Your task to perform on an android device: Search for a new eyeshadow Image 0: 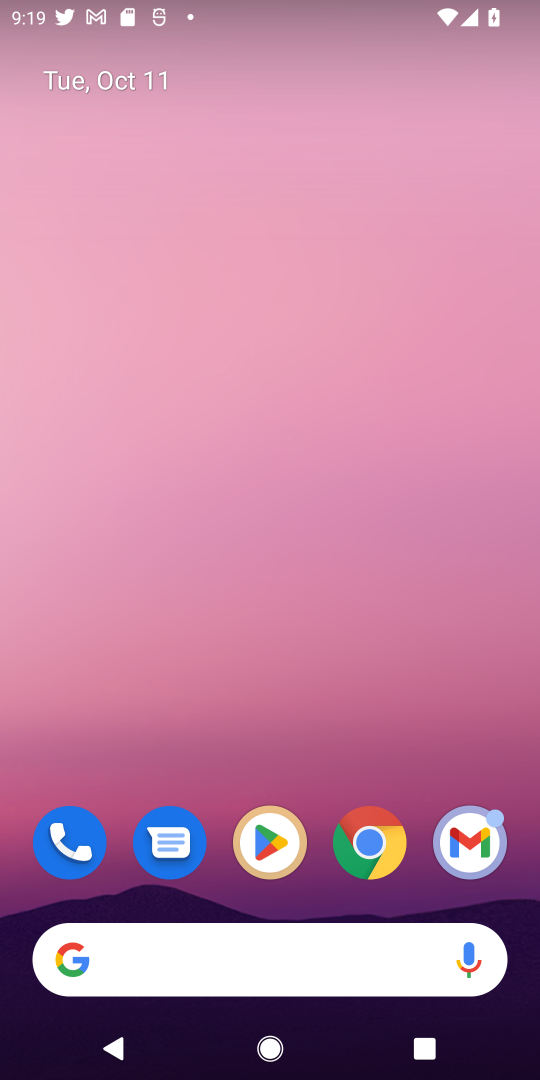
Step 0: click (365, 843)
Your task to perform on an android device: Search for a new eyeshadow Image 1: 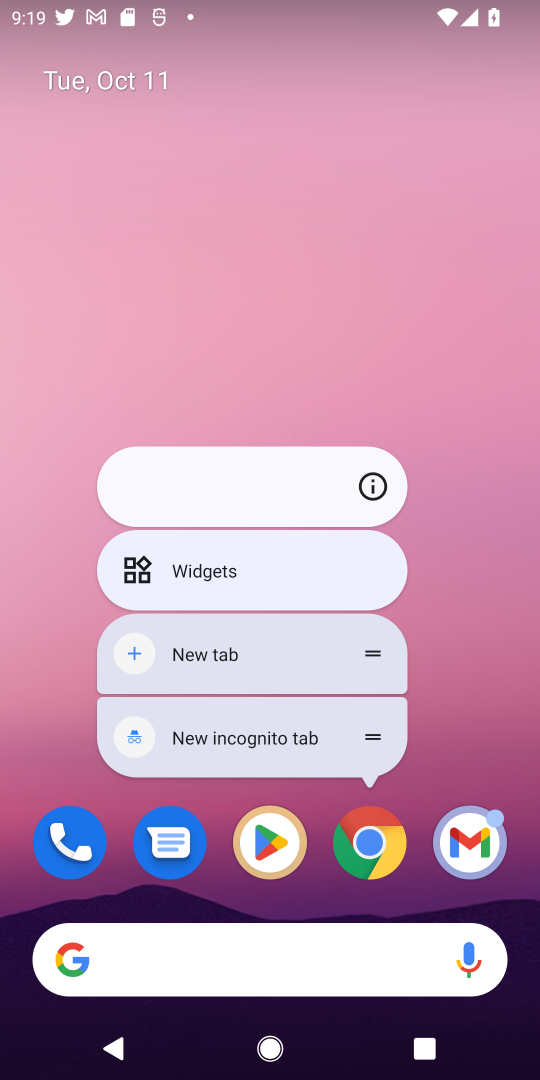
Step 1: click (373, 840)
Your task to perform on an android device: Search for a new eyeshadow Image 2: 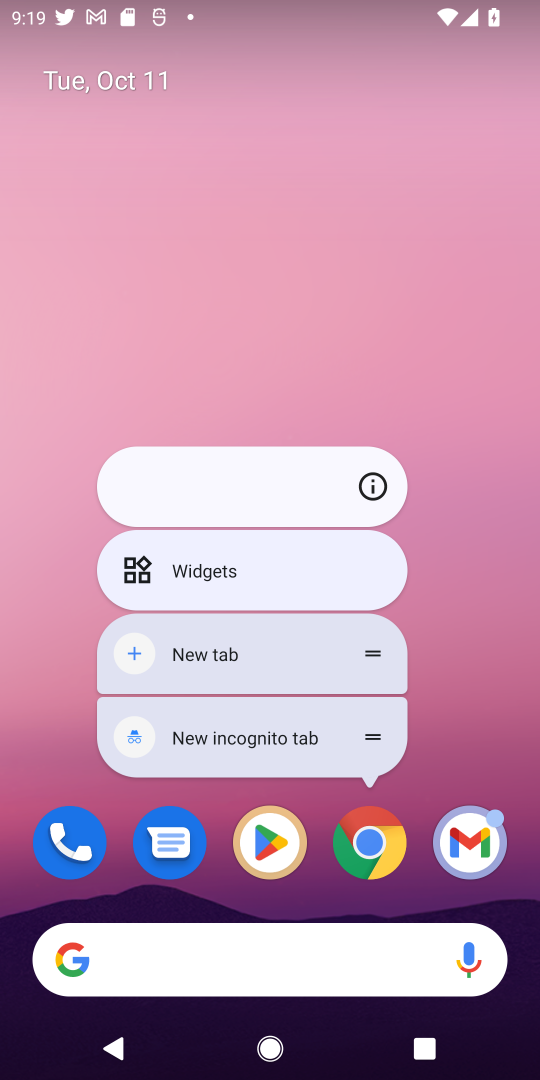
Step 2: click (361, 841)
Your task to perform on an android device: Search for a new eyeshadow Image 3: 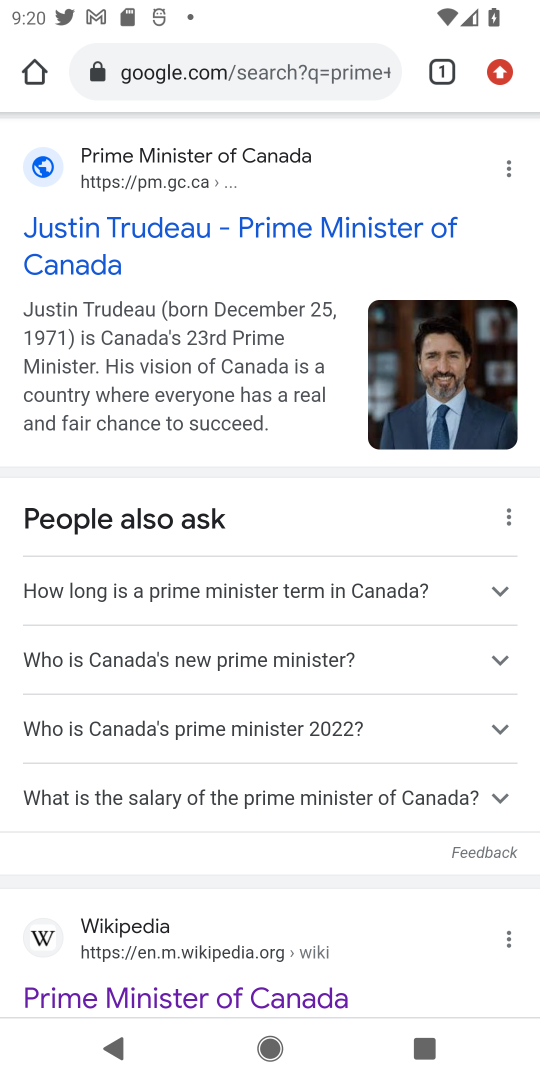
Step 3: click (173, 61)
Your task to perform on an android device: Search for a new eyeshadow Image 4: 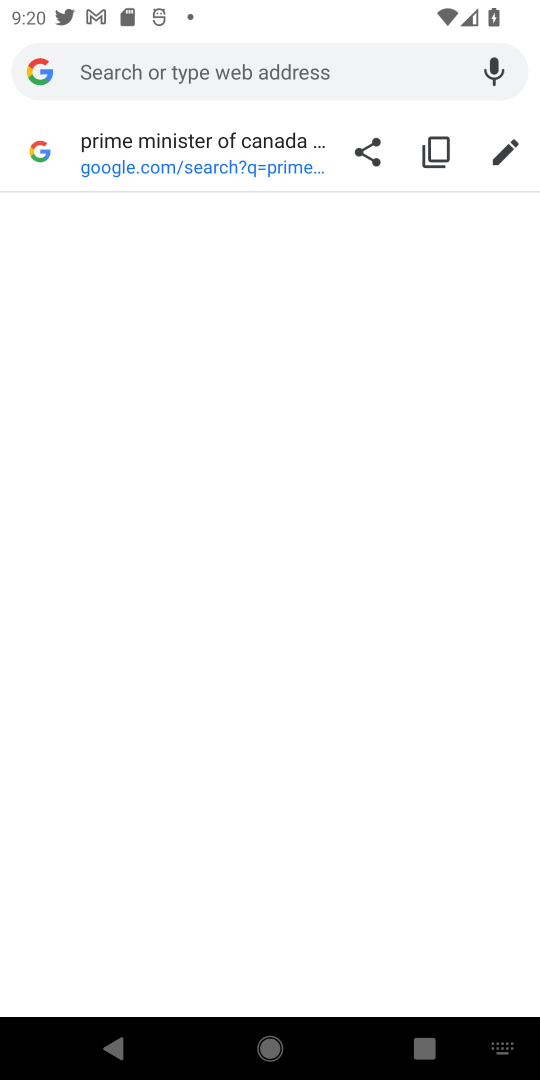
Step 4: type "new eyeshadow"
Your task to perform on an android device: Search for a new eyeshadow Image 5: 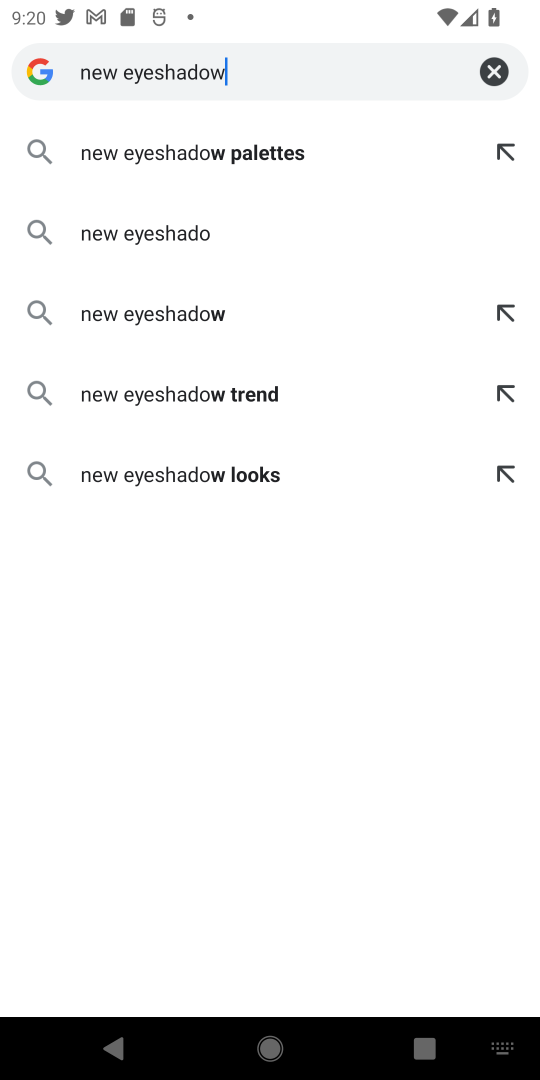
Step 5: type ""
Your task to perform on an android device: Search for a new eyeshadow Image 6: 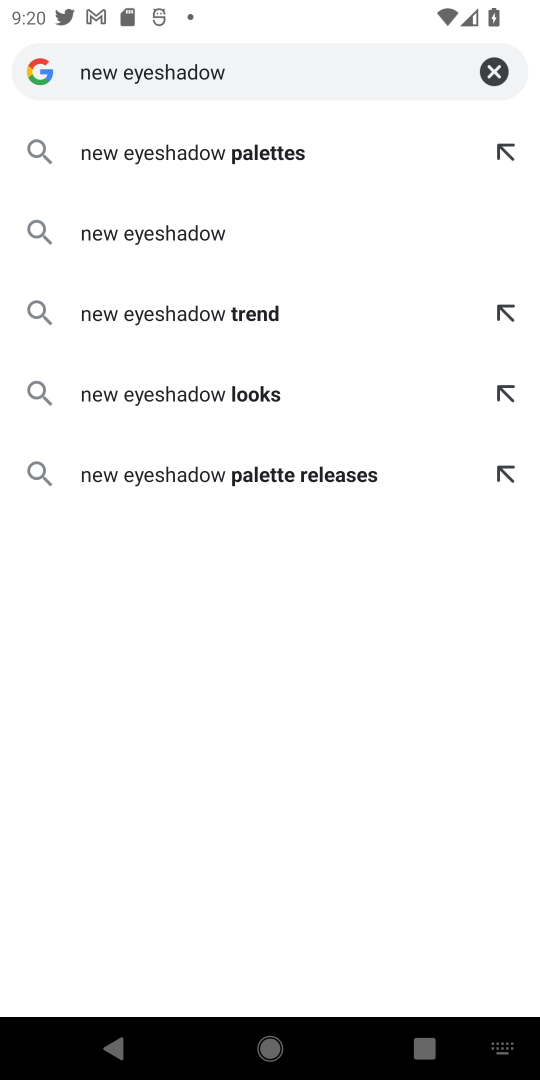
Step 6: click (101, 230)
Your task to perform on an android device: Search for a new eyeshadow Image 7: 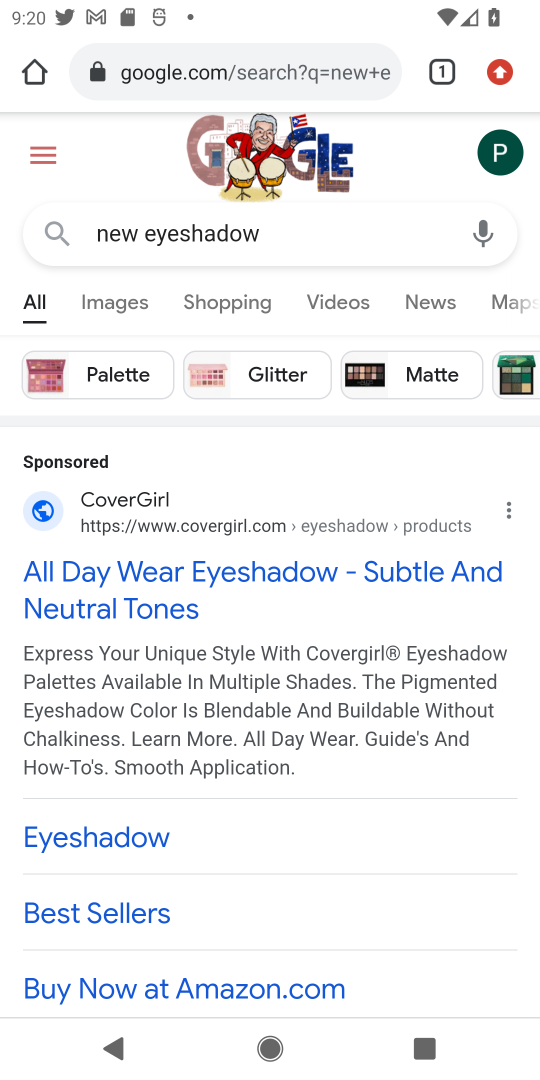
Step 7: click (90, 835)
Your task to perform on an android device: Search for a new eyeshadow Image 8: 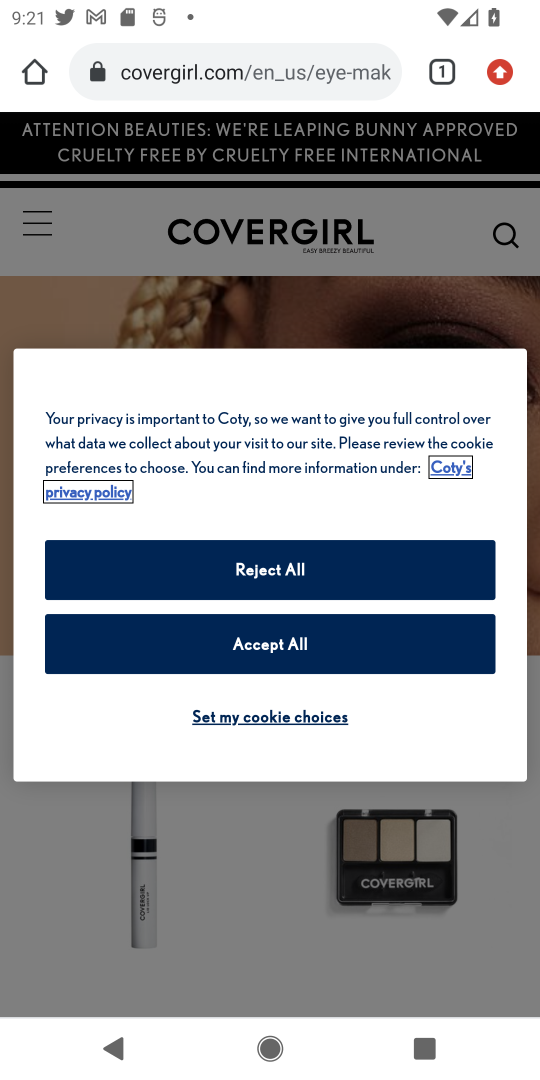
Step 8: click (269, 578)
Your task to perform on an android device: Search for a new eyeshadow Image 9: 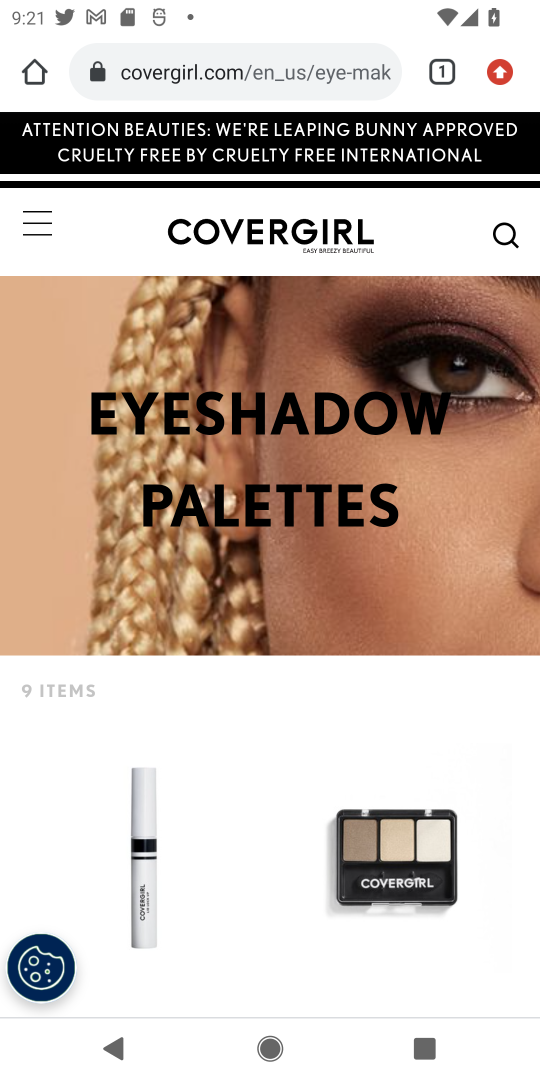
Step 9: task complete